Your task to perform on an android device: Go to Android settings Image 0: 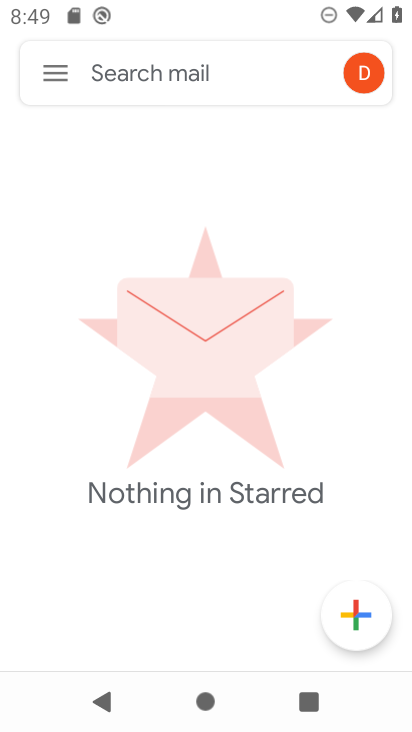
Step 0: press home button
Your task to perform on an android device: Go to Android settings Image 1: 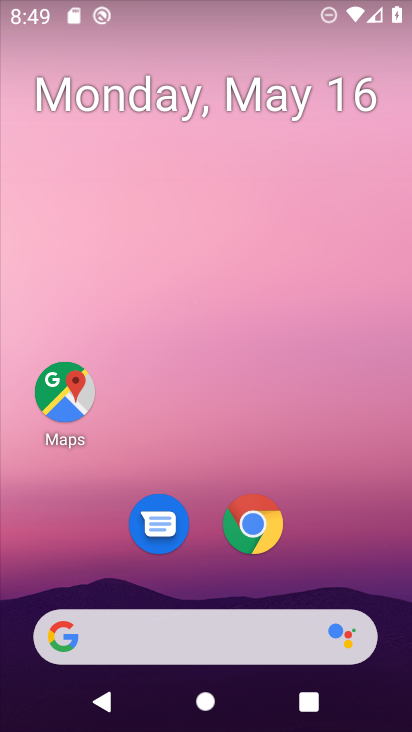
Step 1: drag from (316, 535) to (275, 100)
Your task to perform on an android device: Go to Android settings Image 2: 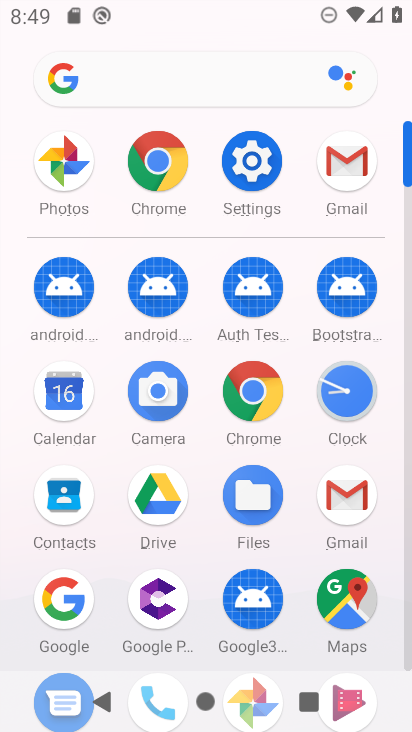
Step 2: click (267, 155)
Your task to perform on an android device: Go to Android settings Image 3: 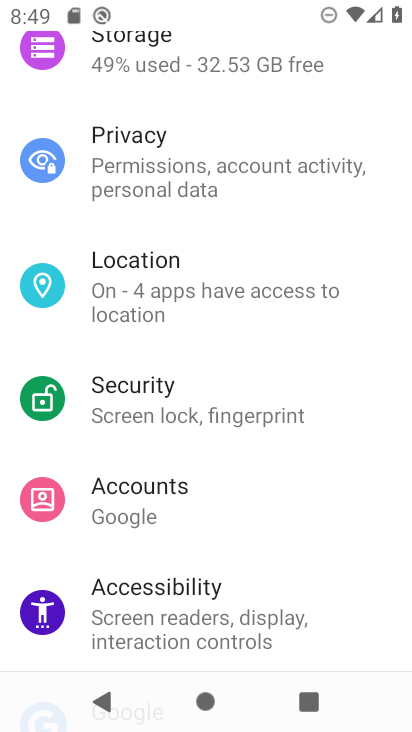
Step 3: drag from (280, 498) to (249, 78)
Your task to perform on an android device: Go to Android settings Image 4: 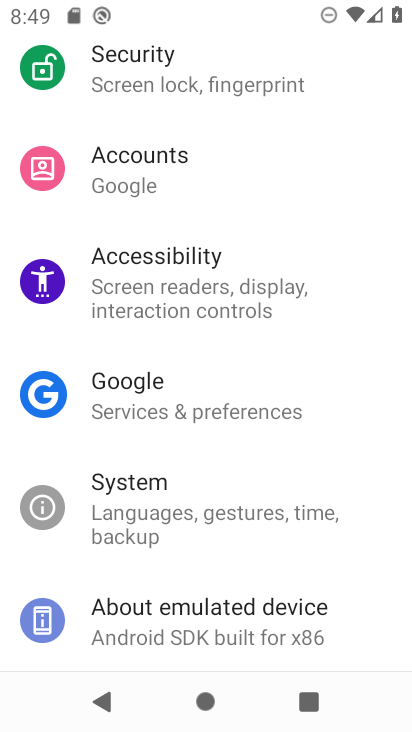
Step 4: click (232, 618)
Your task to perform on an android device: Go to Android settings Image 5: 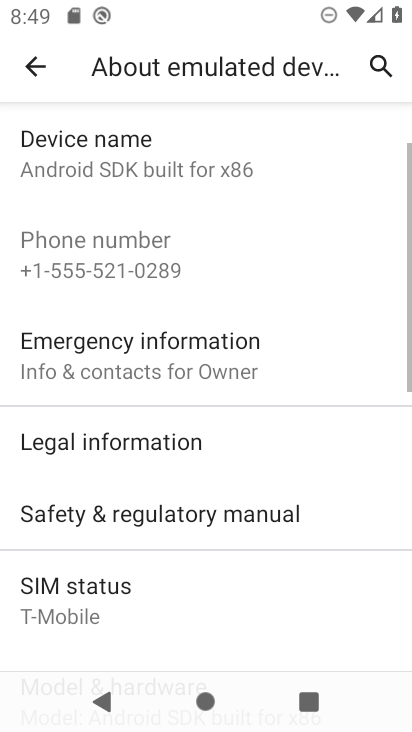
Step 5: task complete